Your task to perform on an android device: Open Yahoo.com Image 0: 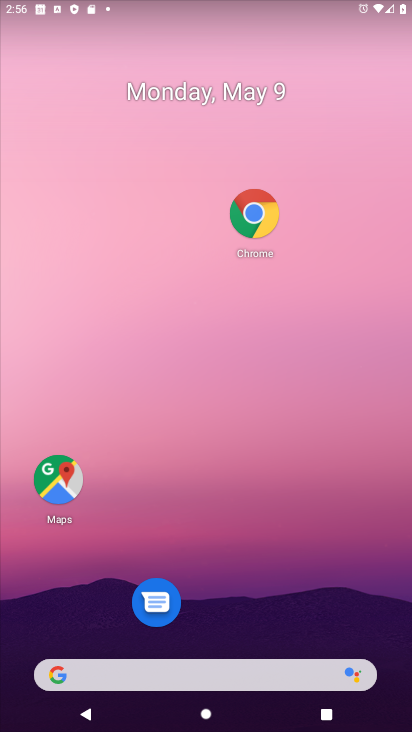
Step 0: click (256, 243)
Your task to perform on an android device: Open Yahoo.com Image 1: 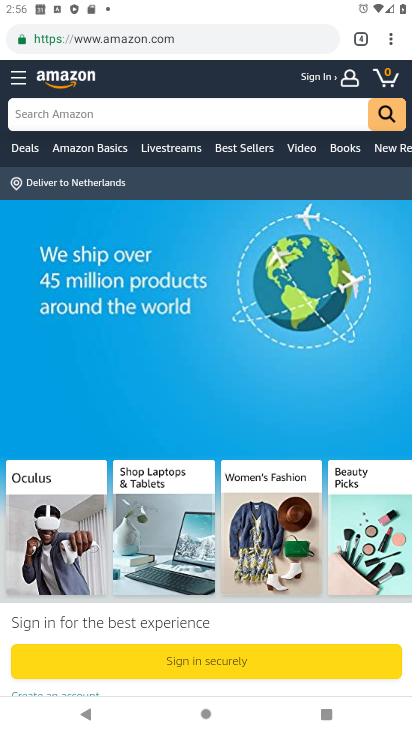
Step 1: click (222, 46)
Your task to perform on an android device: Open Yahoo.com Image 2: 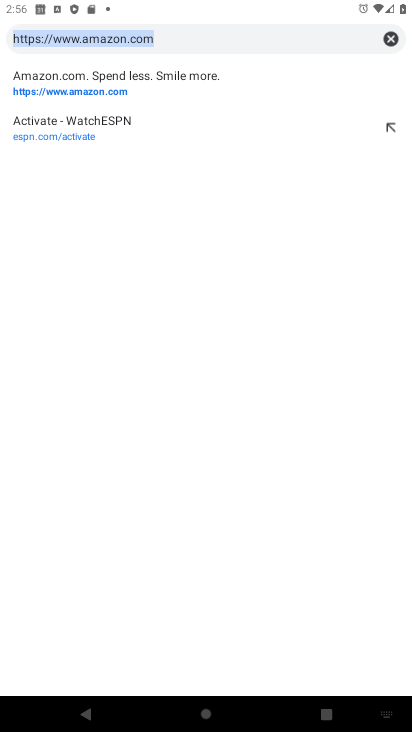
Step 2: type "yahoo.com"
Your task to perform on an android device: Open Yahoo.com Image 3: 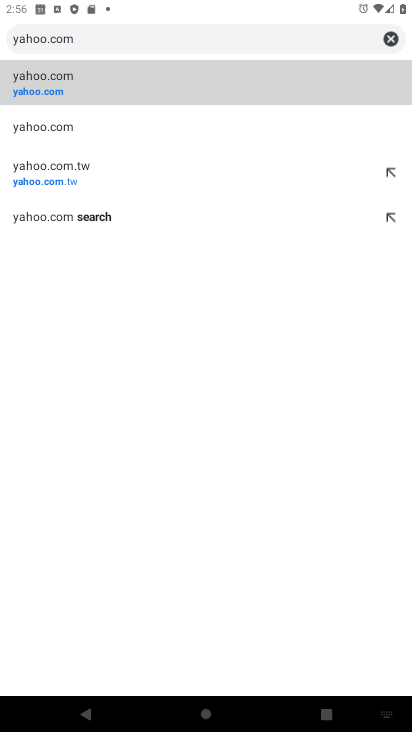
Step 3: click (274, 124)
Your task to perform on an android device: Open Yahoo.com Image 4: 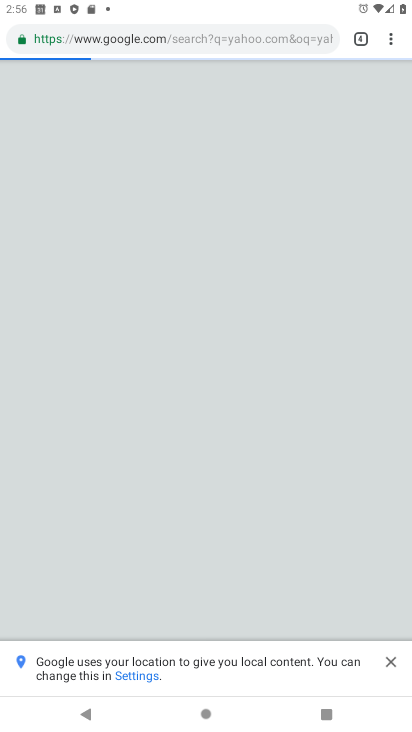
Step 4: task complete